Your task to perform on an android device: read, delete, or share a saved page in the chrome app Image 0: 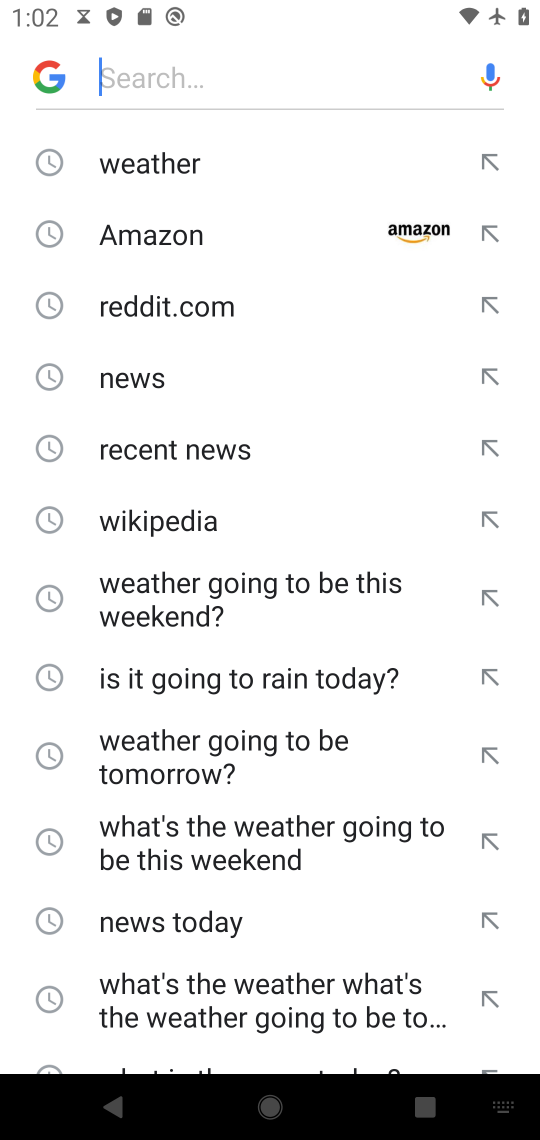
Step 0: press home button
Your task to perform on an android device: read, delete, or share a saved page in the chrome app Image 1: 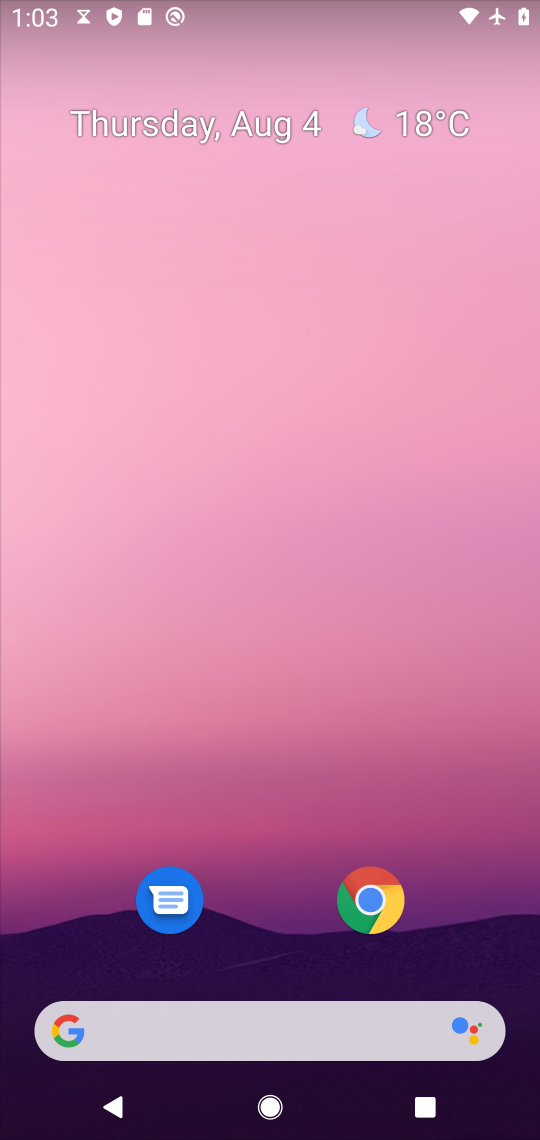
Step 1: click (387, 906)
Your task to perform on an android device: read, delete, or share a saved page in the chrome app Image 2: 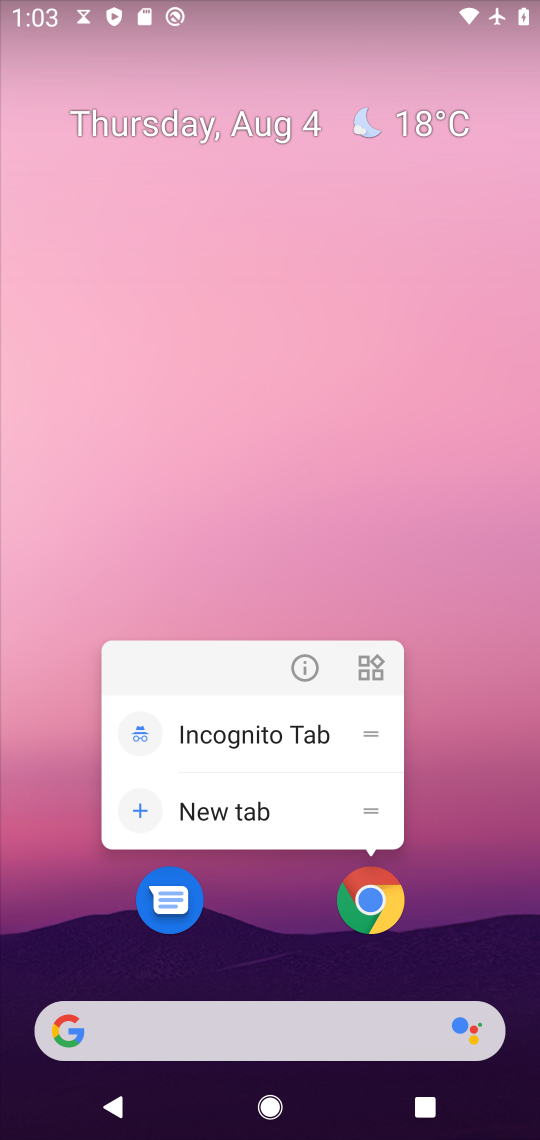
Step 2: click (368, 917)
Your task to perform on an android device: read, delete, or share a saved page in the chrome app Image 3: 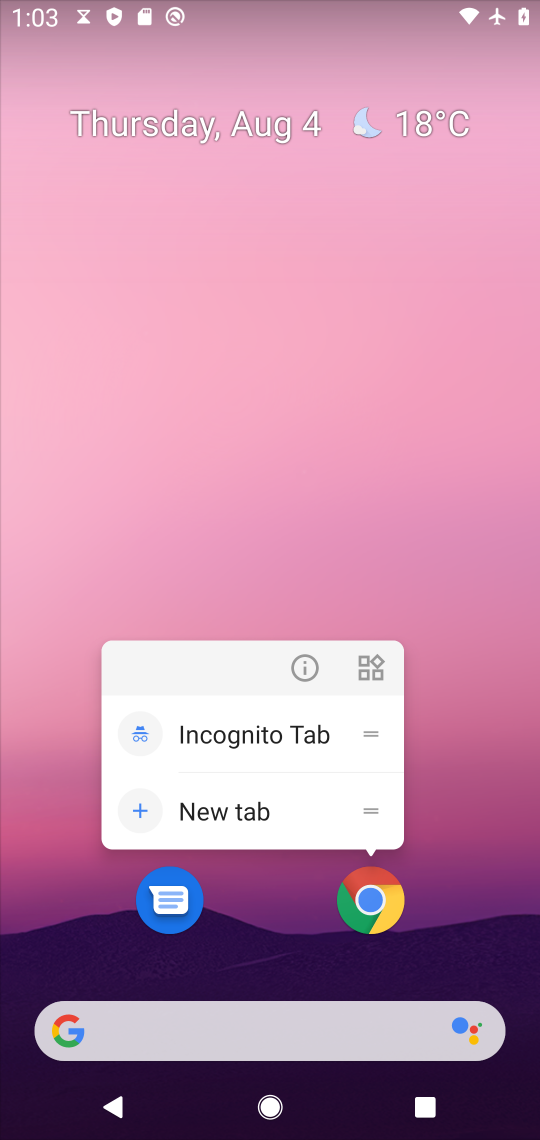
Step 3: click (365, 894)
Your task to perform on an android device: read, delete, or share a saved page in the chrome app Image 4: 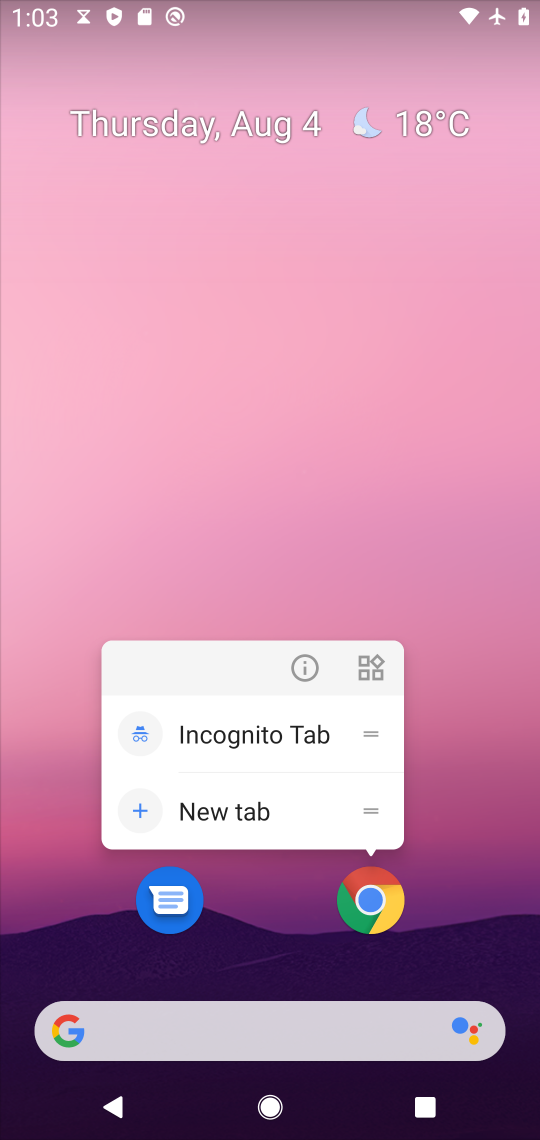
Step 4: click (392, 889)
Your task to perform on an android device: read, delete, or share a saved page in the chrome app Image 5: 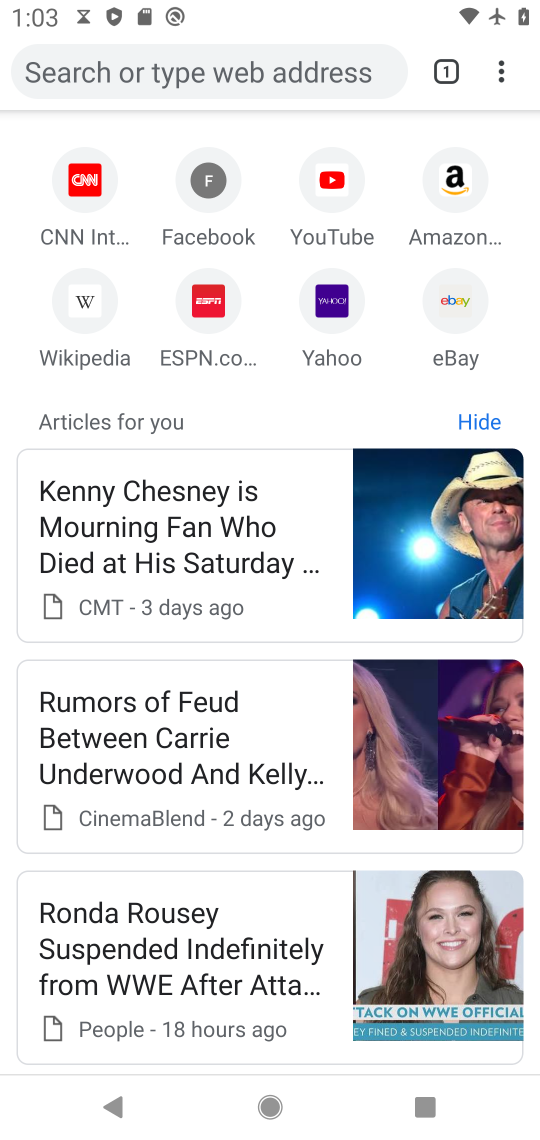
Step 5: drag from (502, 79) to (270, 500)
Your task to perform on an android device: read, delete, or share a saved page in the chrome app Image 6: 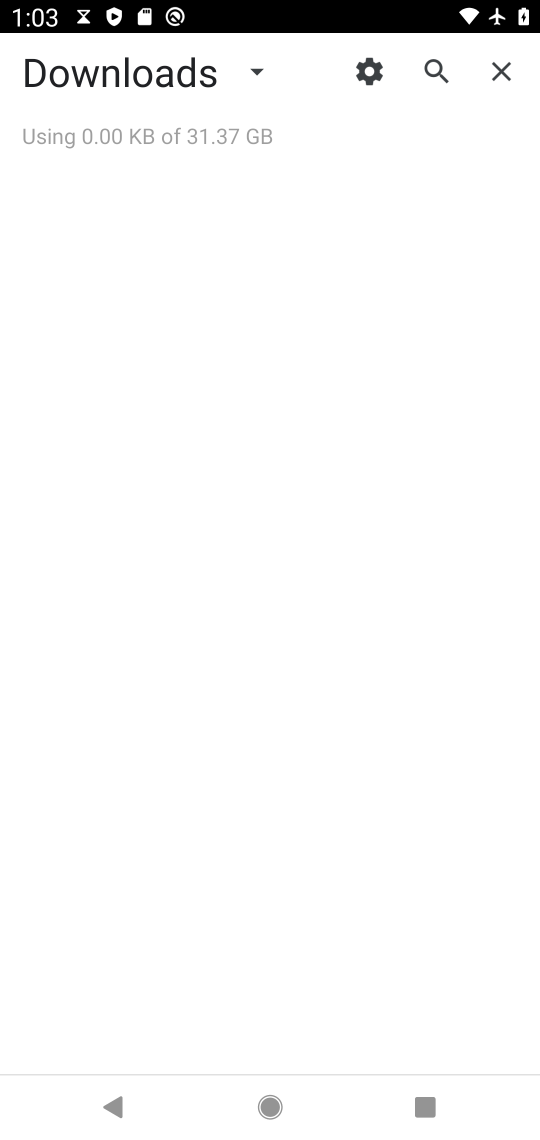
Step 6: click (261, 73)
Your task to perform on an android device: read, delete, or share a saved page in the chrome app Image 7: 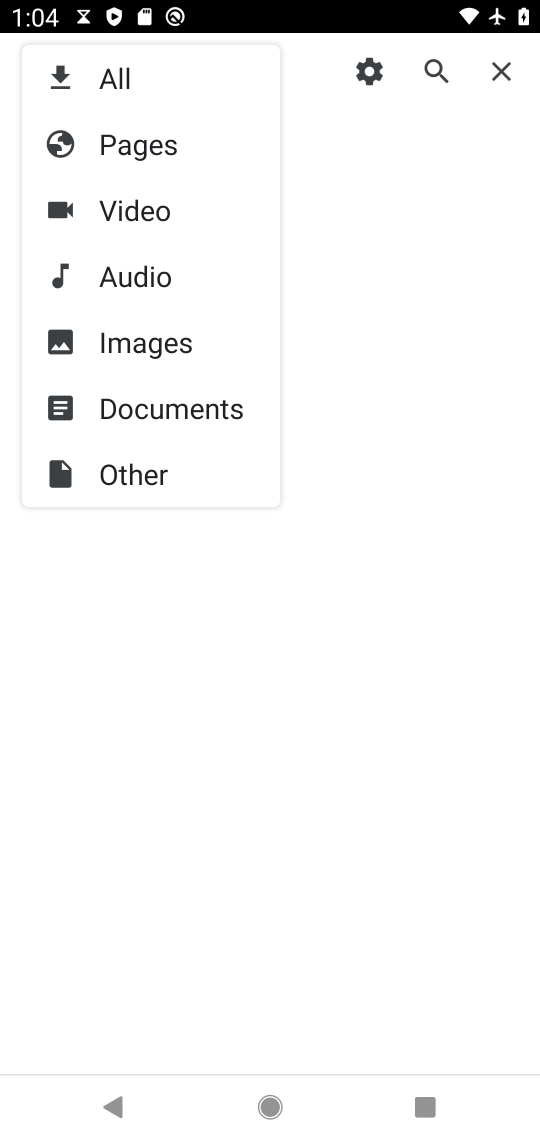
Step 7: click (113, 95)
Your task to perform on an android device: read, delete, or share a saved page in the chrome app Image 8: 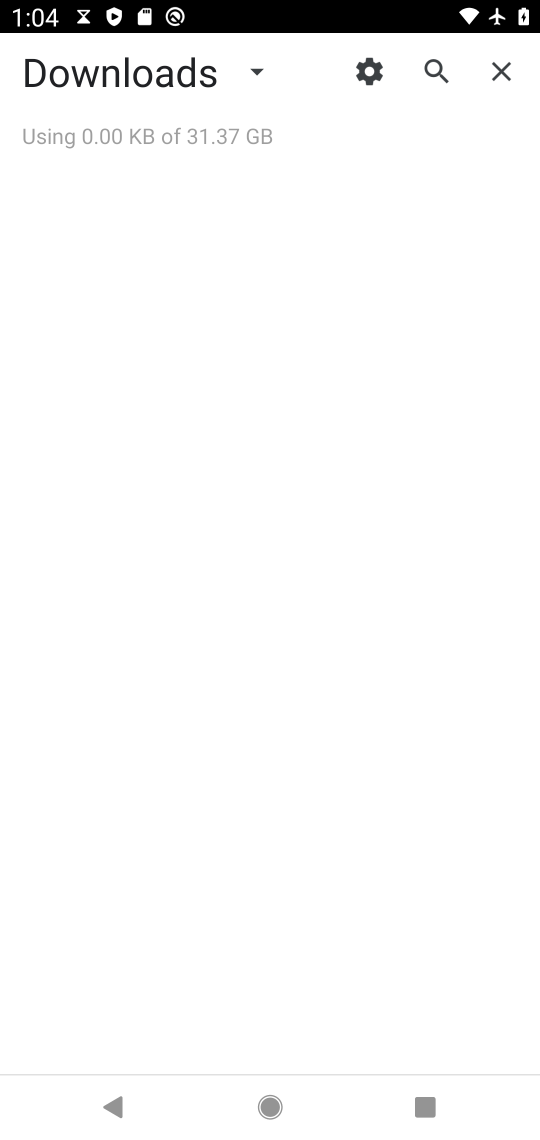
Step 8: click (247, 75)
Your task to perform on an android device: read, delete, or share a saved page in the chrome app Image 9: 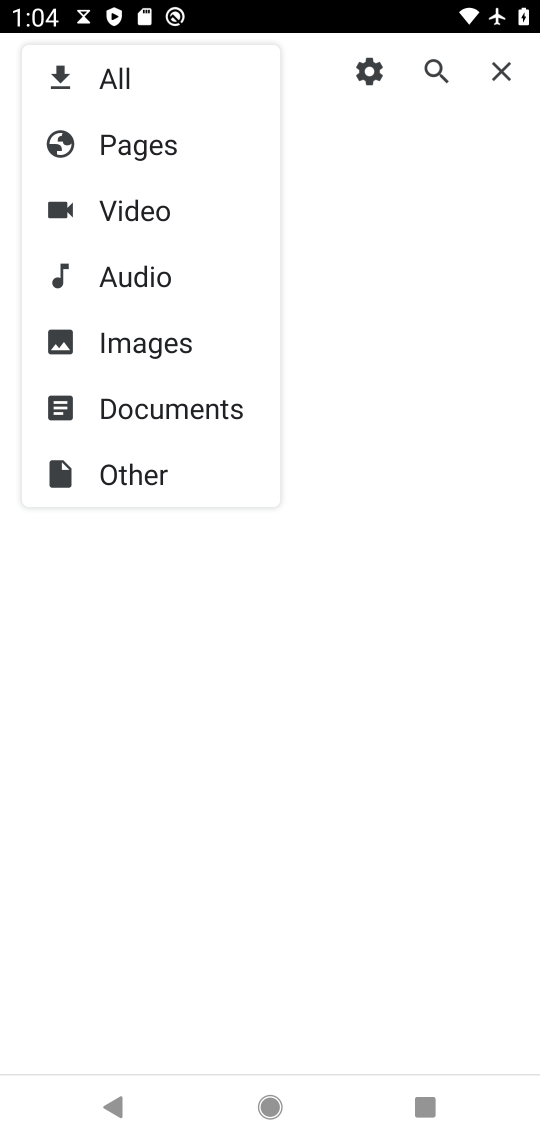
Step 9: click (129, 159)
Your task to perform on an android device: read, delete, or share a saved page in the chrome app Image 10: 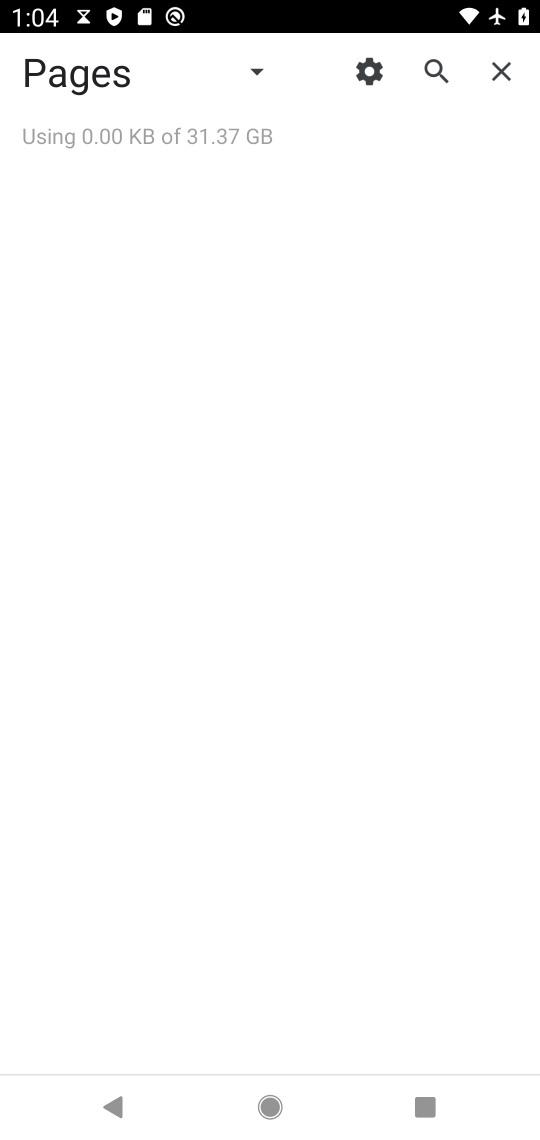
Step 10: task complete